Your task to perform on an android device: How much does the TCL TV cost? Image 0: 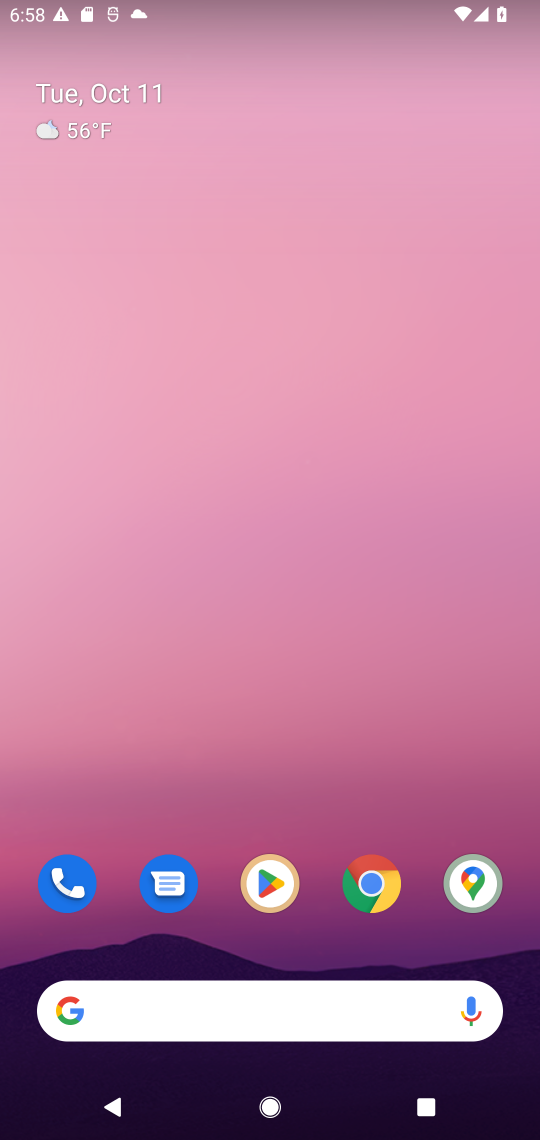
Step 0: drag from (318, 957) to (319, 107)
Your task to perform on an android device: How much does the TCL TV cost? Image 1: 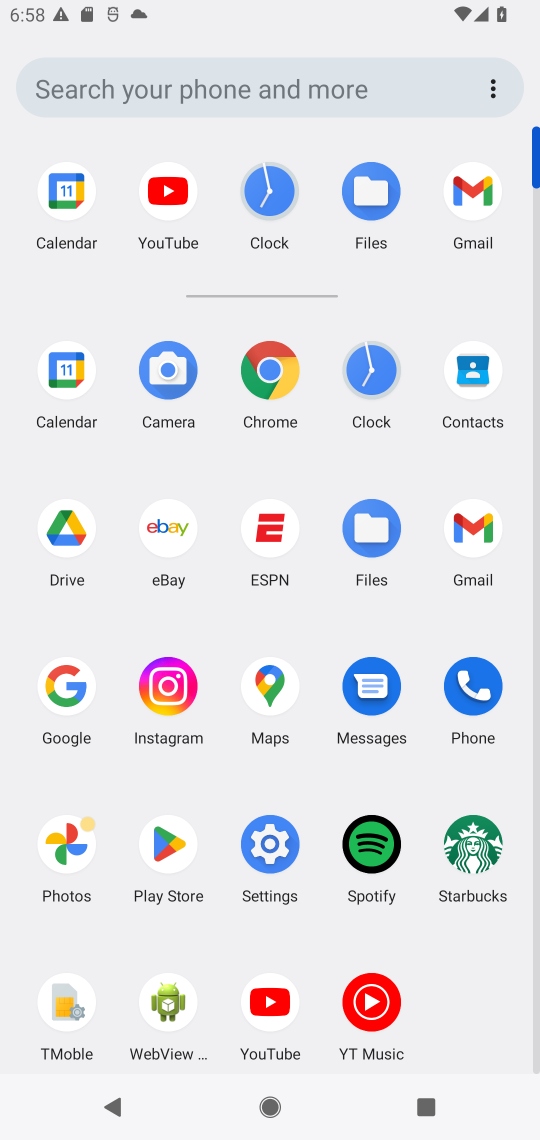
Step 1: click (276, 363)
Your task to perform on an android device: How much does the TCL TV cost? Image 2: 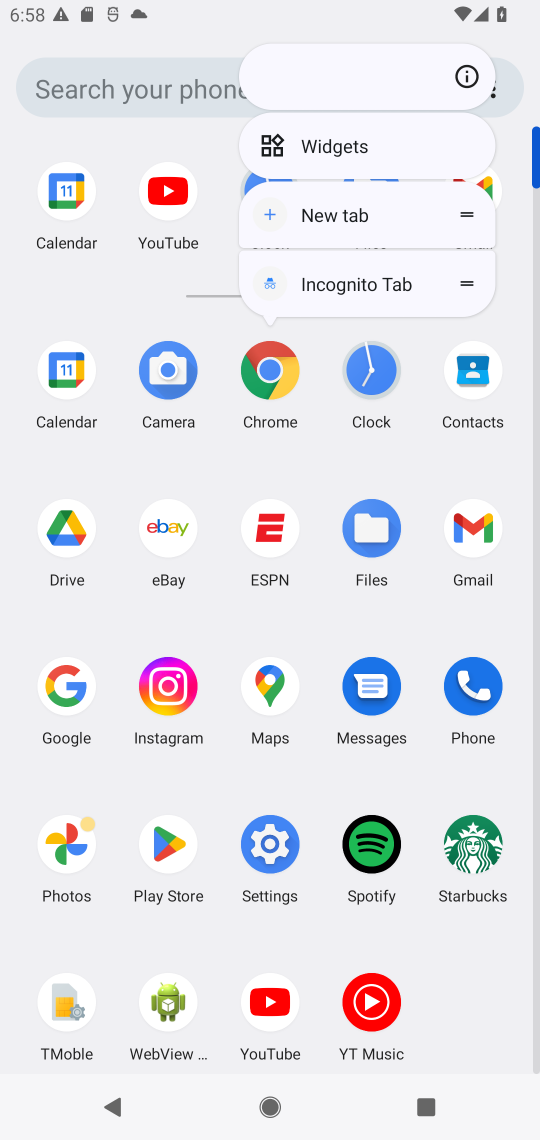
Step 2: click (271, 372)
Your task to perform on an android device: How much does the TCL TV cost? Image 3: 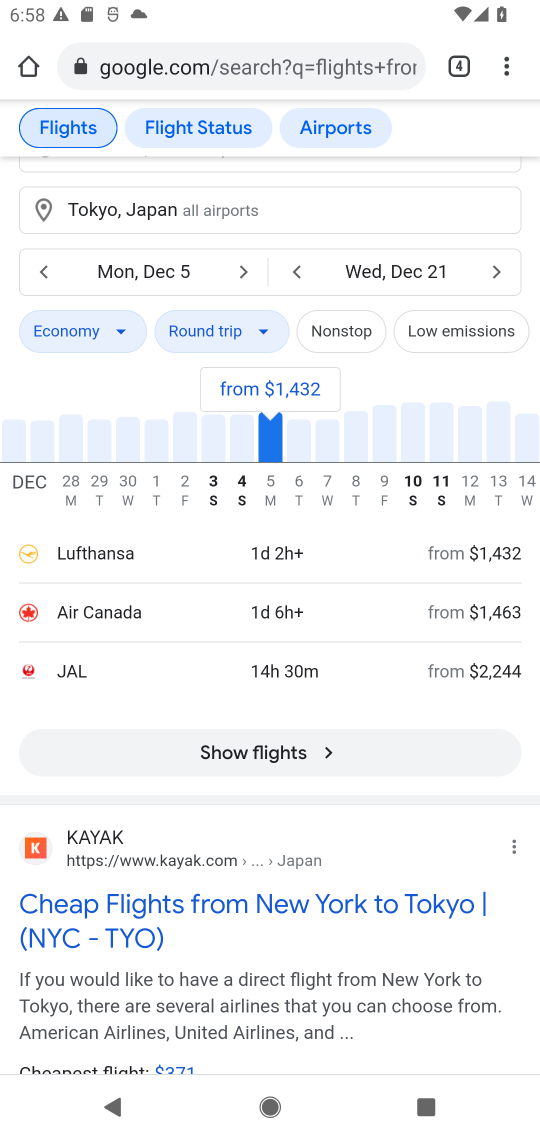
Step 3: click (354, 55)
Your task to perform on an android device: How much does the TCL TV cost? Image 4: 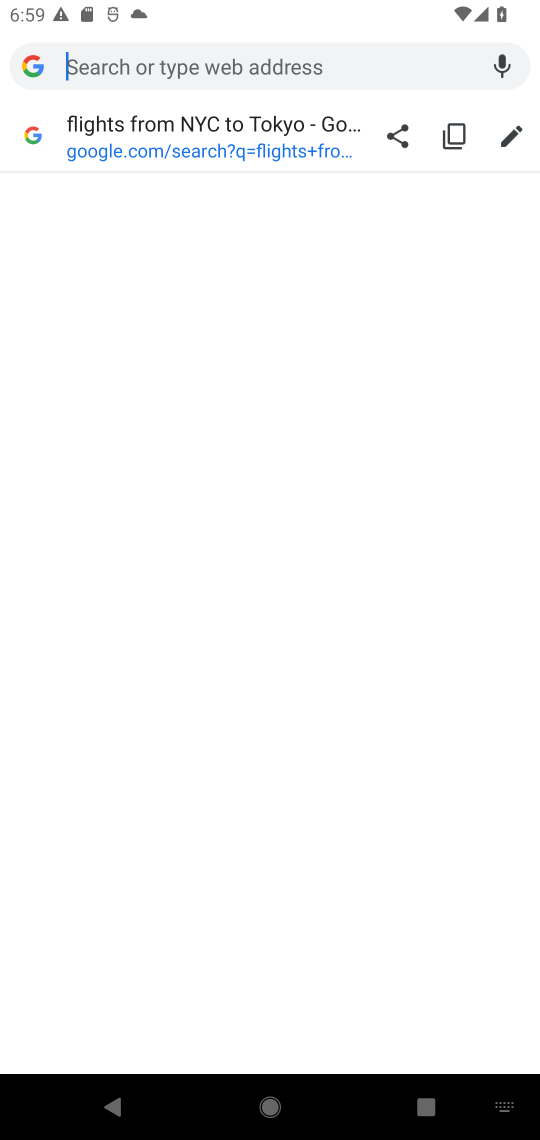
Step 4: type "How much does the TLC TV cost?"
Your task to perform on an android device: How much does the TCL TV cost? Image 5: 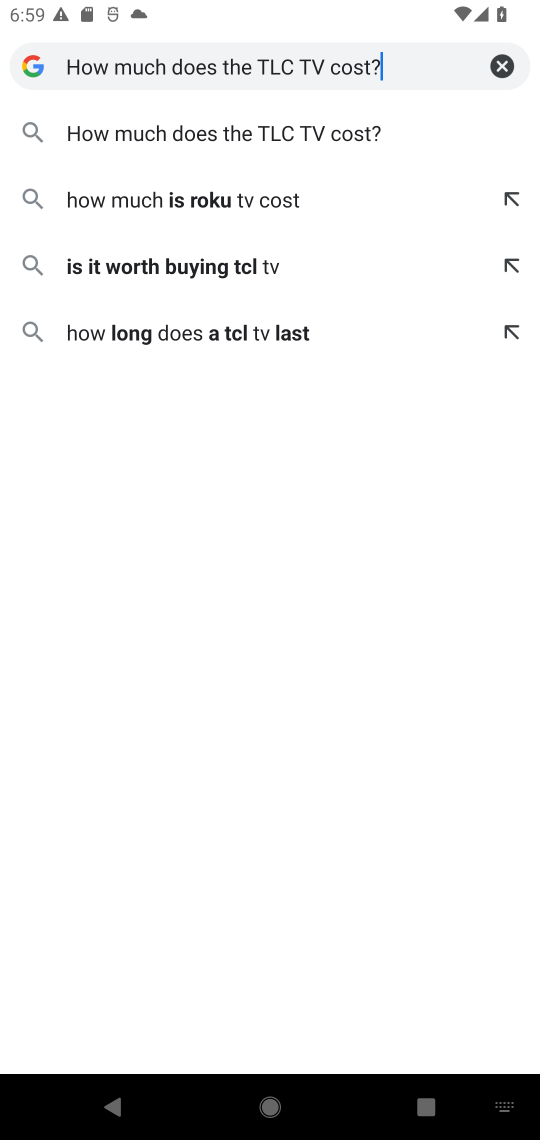
Step 5: press enter
Your task to perform on an android device: How much does the TCL TV cost? Image 6: 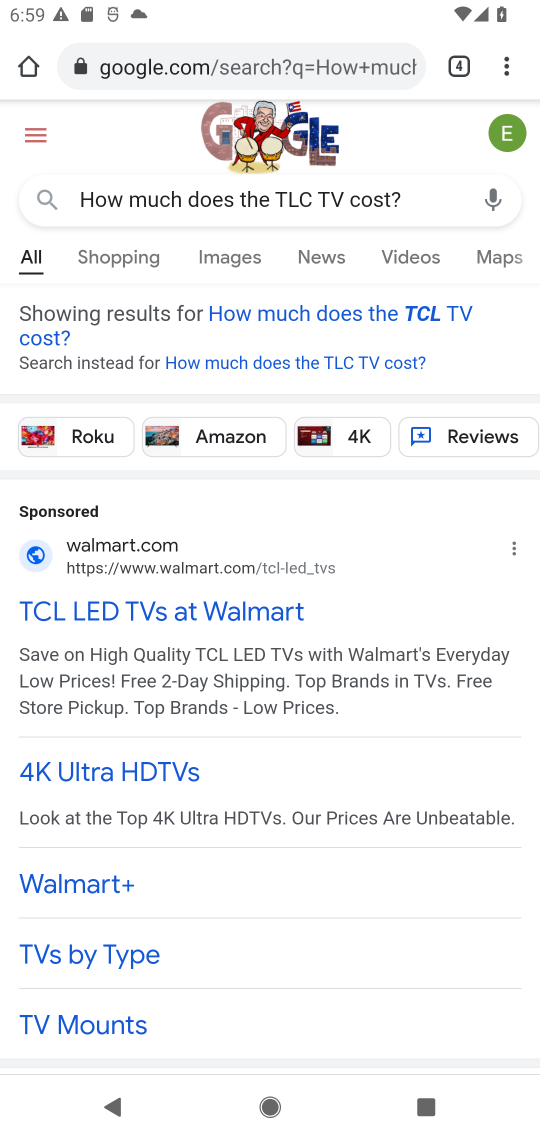
Step 6: task complete